Your task to perform on an android device: Open Google Chrome Image 0: 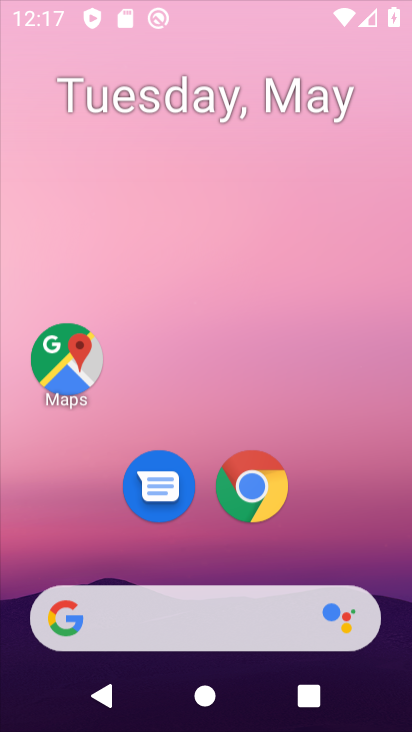
Step 0: drag from (217, 12) to (405, 295)
Your task to perform on an android device: Open Google Chrome Image 1: 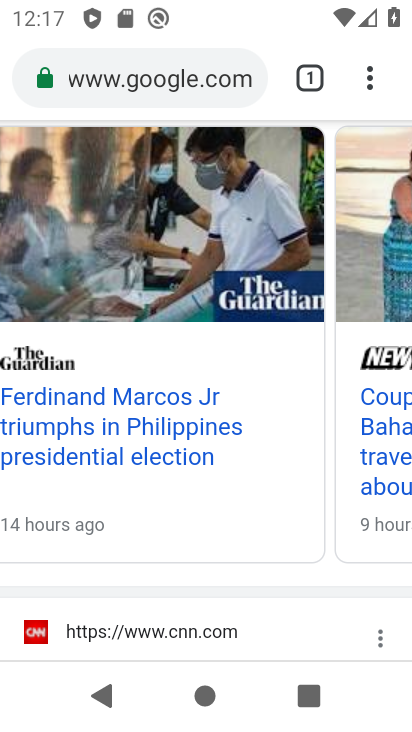
Step 1: task complete